Your task to perform on an android device: Go to settings Image 0: 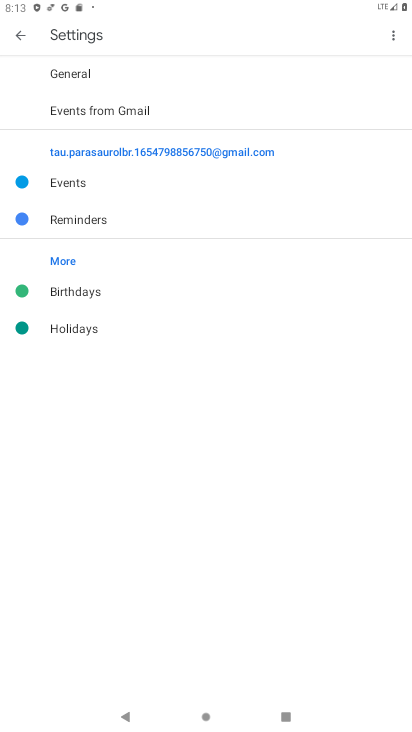
Step 0: press home button
Your task to perform on an android device: Go to settings Image 1: 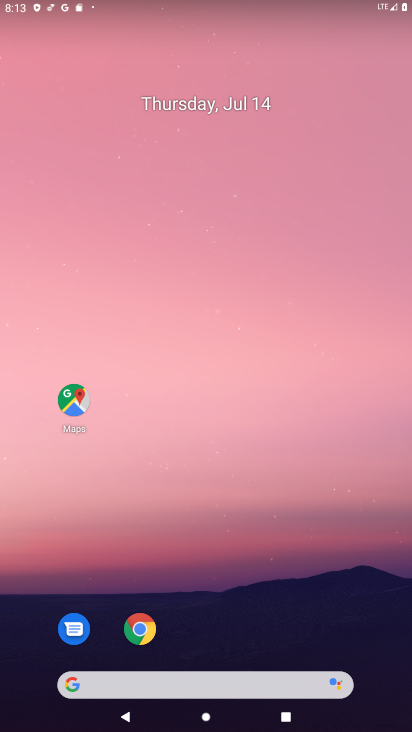
Step 1: drag from (73, 525) to (361, 94)
Your task to perform on an android device: Go to settings Image 2: 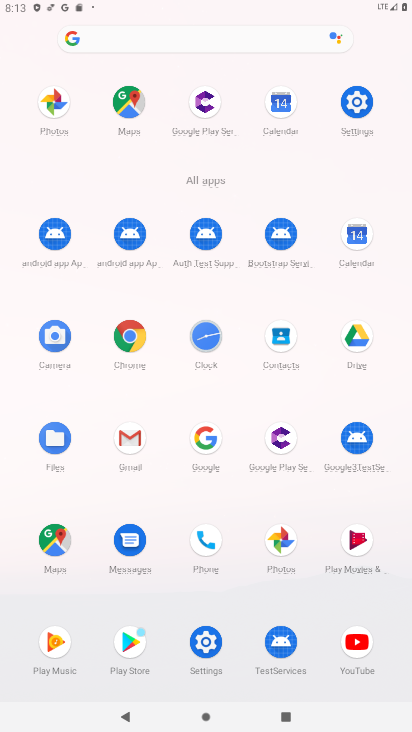
Step 2: click (353, 109)
Your task to perform on an android device: Go to settings Image 3: 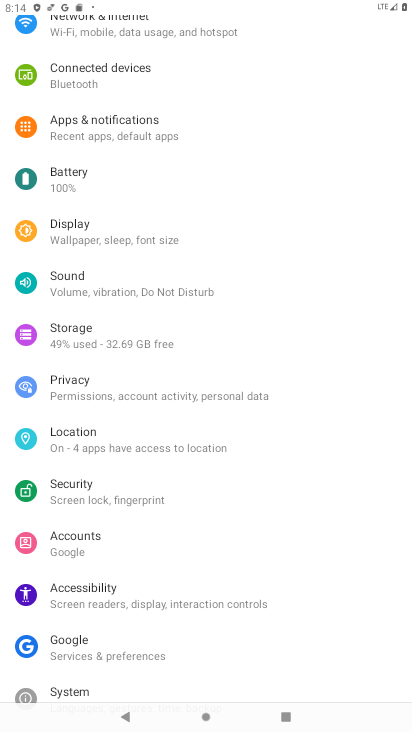
Step 3: task complete